Your task to perform on an android device: turn off picture-in-picture Image 0: 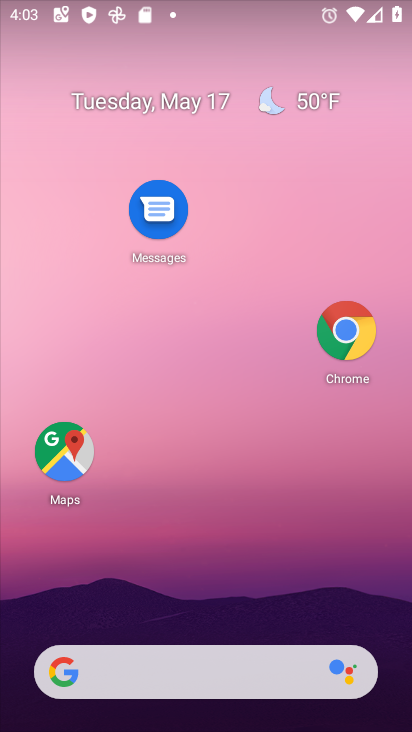
Step 0: drag from (215, 632) to (211, 232)
Your task to perform on an android device: turn off picture-in-picture Image 1: 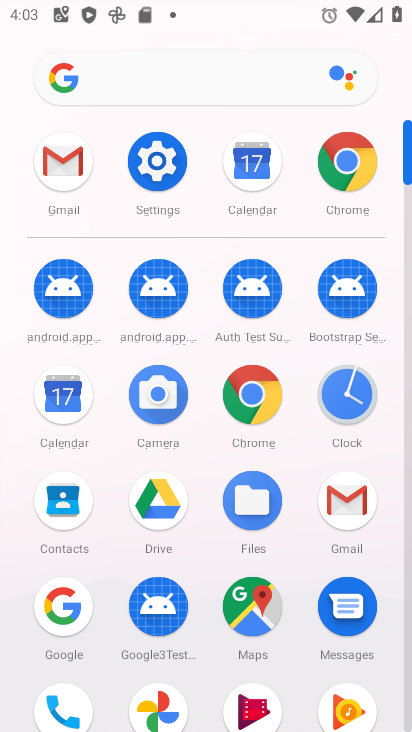
Step 1: click (133, 186)
Your task to perform on an android device: turn off picture-in-picture Image 2: 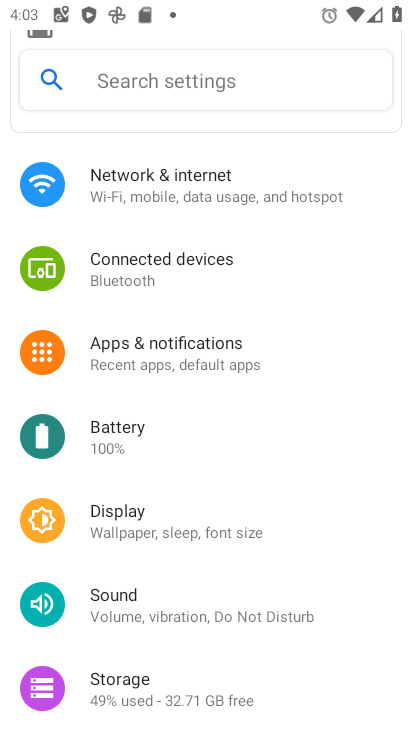
Step 2: click (160, 387)
Your task to perform on an android device: turn off picture-in-picture Image 3: 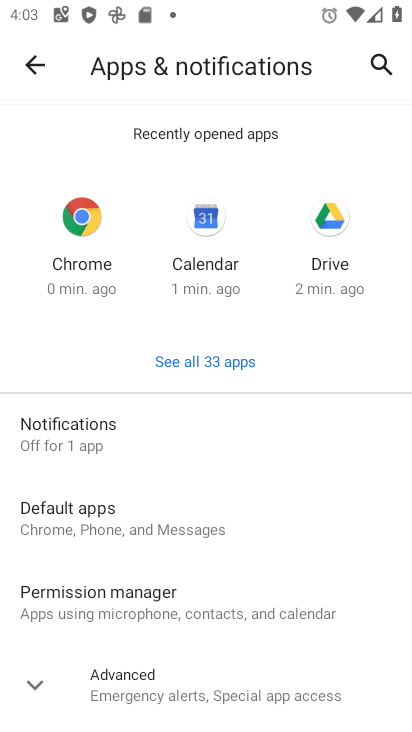
Step 3: drag from (207, 477) to (211, 232)
Your task to perform on an android device: turn off picture-in-picture Image 4: 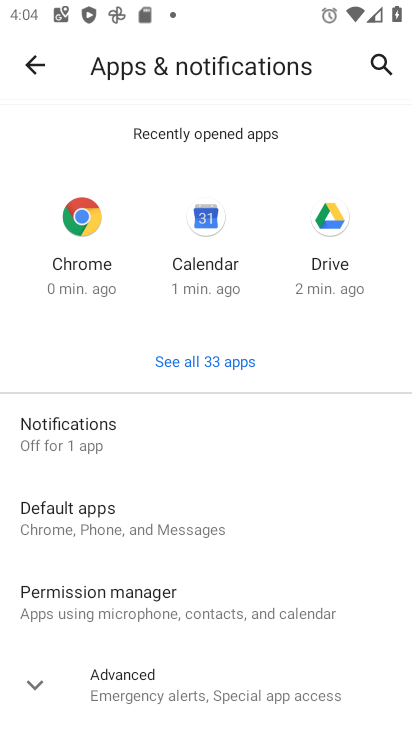
Step 4: click (226, 664)
Your task to perform on an android device: turn off picture-in-picture Image 5: 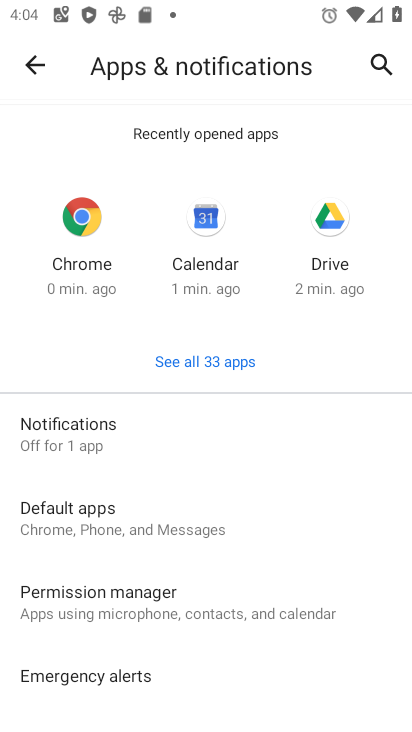
Step 5: drag from (182, 632) to (132, 330)
Your task to perform on an android device: turn off picture-in-picture Image 6: 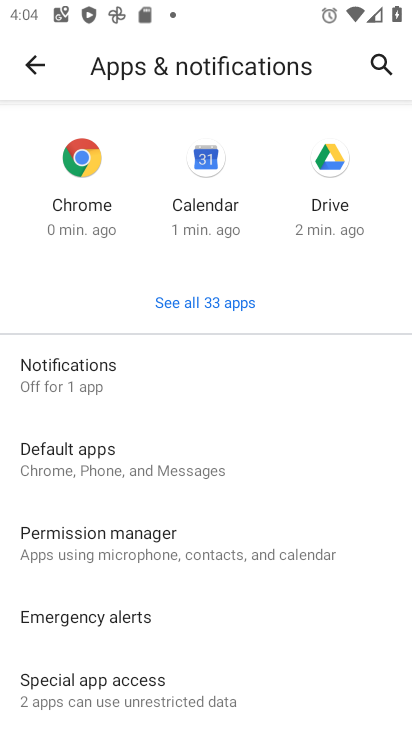
Step 6: click (137, 677)
Your task to perform on an android device: turn off picture-in-picture Image 7: 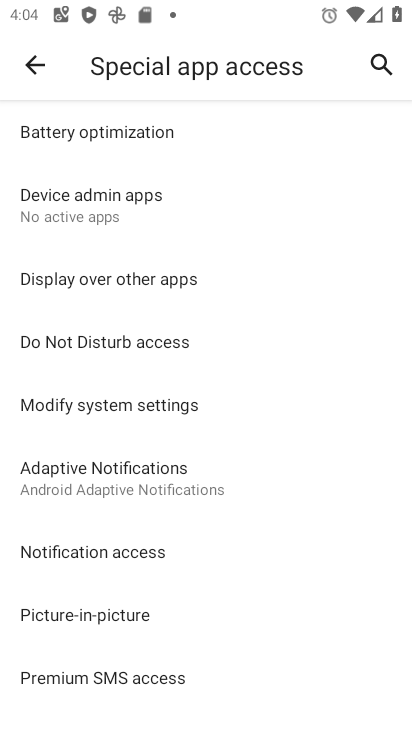
Step 7: click (128, 607)
Your task to perform on an android device: turn off picture-in-picture Image 8: 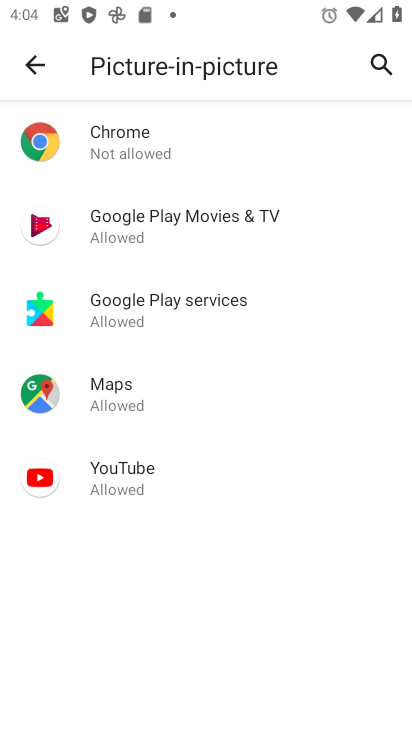
Step 8: click (236, 156)
Your task to perform on an android device: turn off picture-in-picture Image 9: 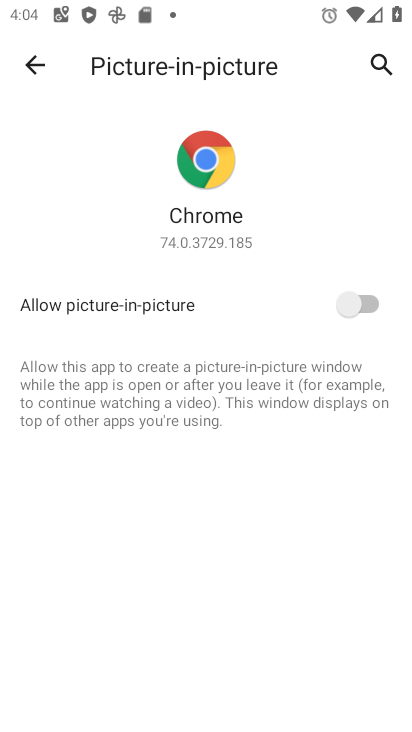
Step 9: task complete